Your task to perform on an android device: toggle data saver in the chrome app Image 0: 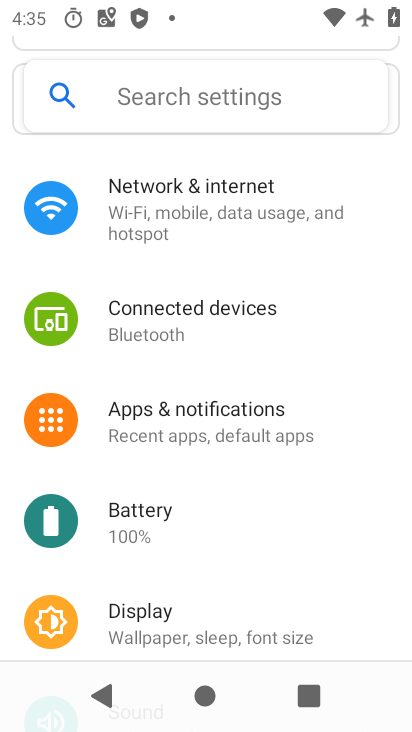
Step 0: press home button
Your task to perform on an android device: toggle data saver in the chrome app Image 1: 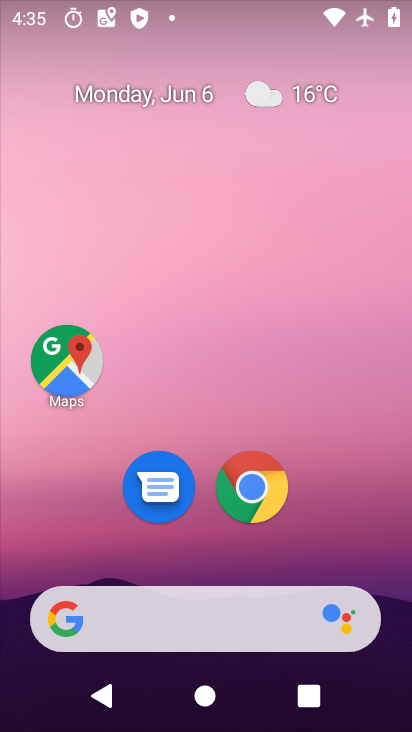
Step 1: click (255, 488)
Your task to perform on an android device: toggle data saver in the chrome app Image 2: 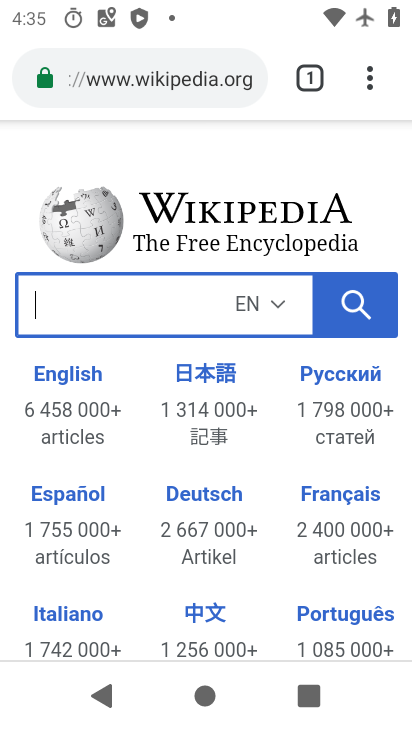
Step 2: drag from (372, 77) to (210, 576)
Your task to perform on an android device: toggle data saver in the chrome app Image 3: 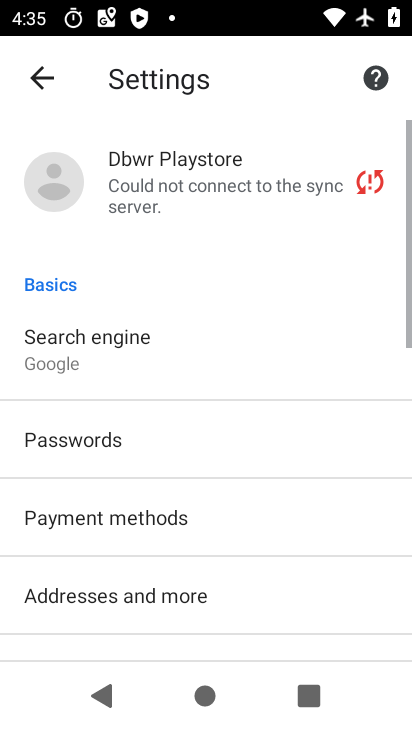
Step 3: drag from (205, 565) to (224, 49)
Your task to perform on an android device: toggle data saver in the chrome app Image 4: 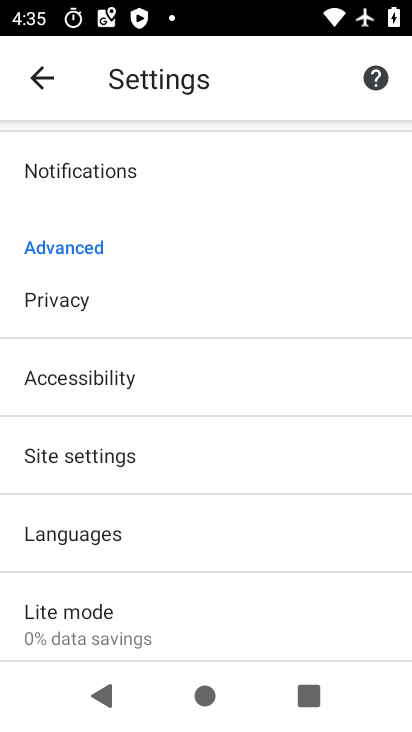
Step 4: click (122, 607)
Your task to perform on an android device: toggle data saver in the chrome app Image 5: 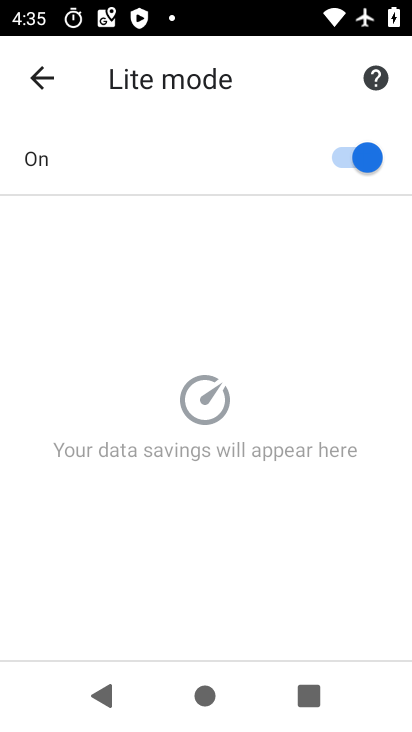
Step 5: click (341, 158)
Your task to perform on an android device: toggle data saver in the chrome app Image 6: 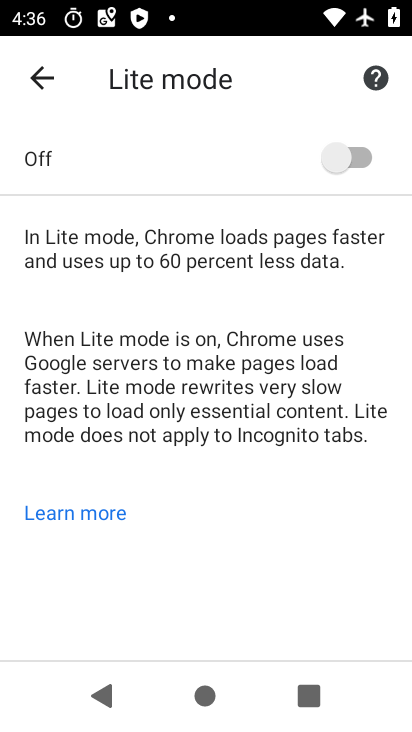
Step 6: click (358, 156)
Your task to perform on an android device: toggle data saver in the chrome app Image 7: 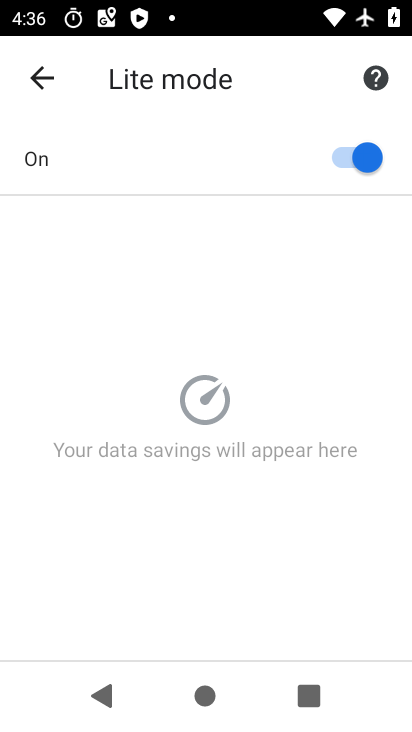
Step 7: task complete